Your task to perform on an android device: turn on airplane mode Image 0: 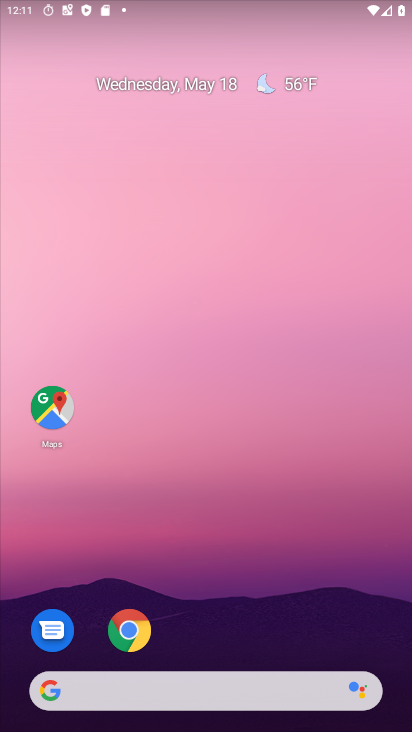
Step 0: drag from (250, 590) to (190, 9)
Your task to perform on an android device: turn on airplane mode Image 1: 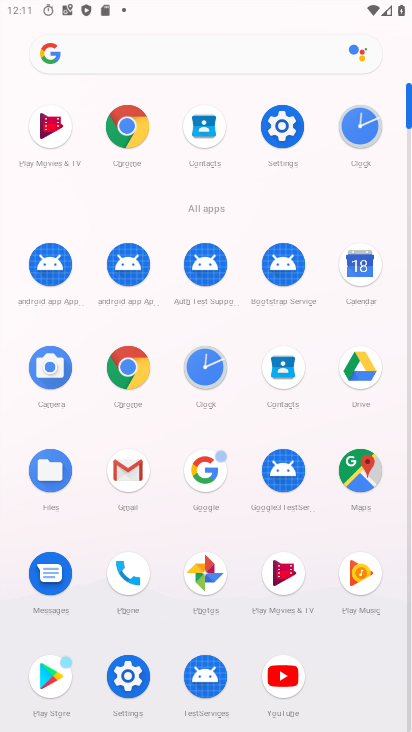
Step 1: click (273, 135)
Your task to perform on an android device: turn on airplane mode Image 2: 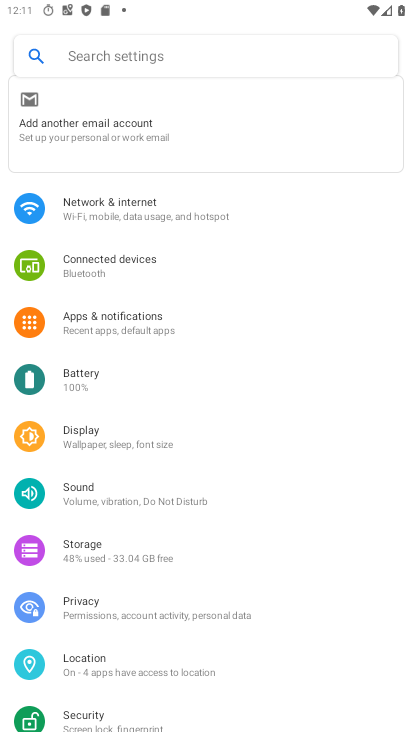
Step 2: click (178, 224)
Your task to perform on an android device: turn on airplane mode Image 3: 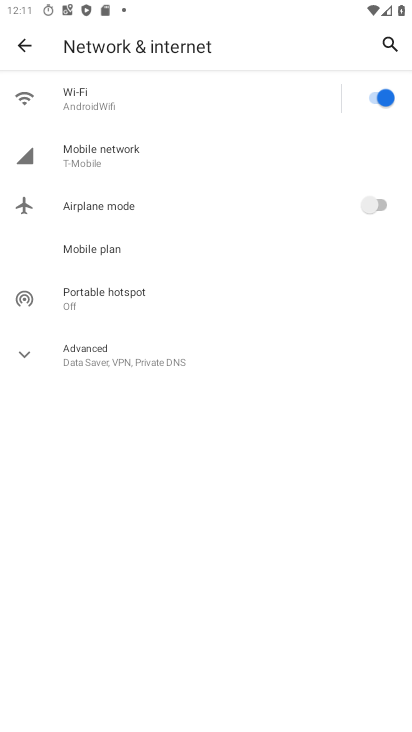
Step 3: click (111, 203)
Your task to perform on an android device: turn on airplane mode Image 4: 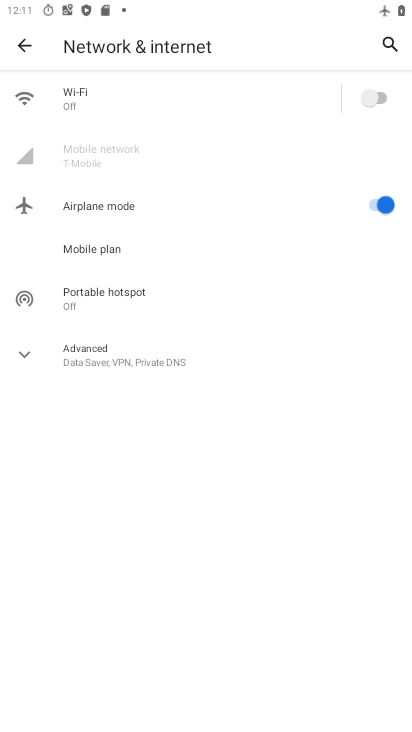
Step 4: task complete